Your task to perform on an android device: Open notification settings Image 0: 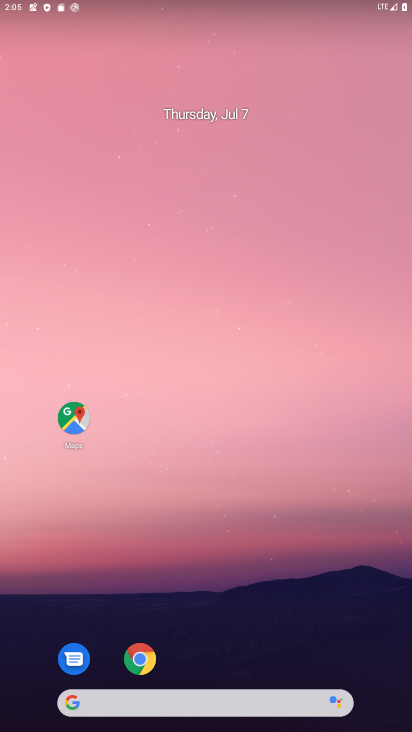
Step 0: drag from (259, 642) to (266, 207)
Your task to perform on an android device: Open notification settings Image 1: 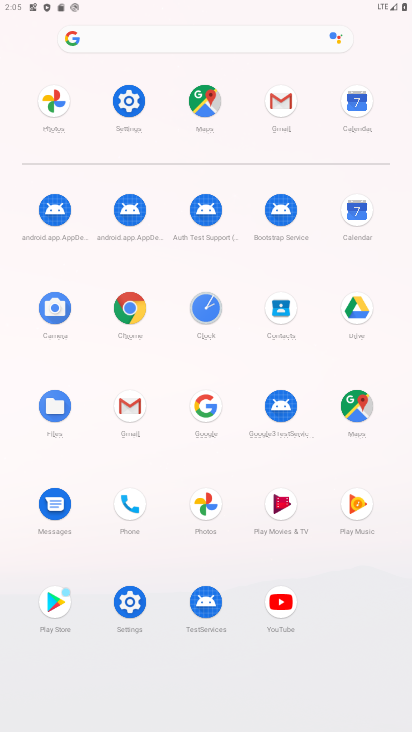
Step 1: click (129, 103)
Your task to perform on an android device: Open notification settings Image 2: 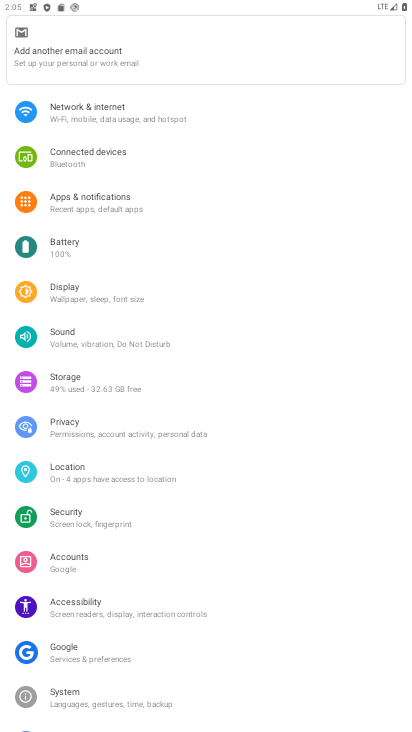
Step 2: click (113, 197)
Your task to perform on an android device: Open notification settings Image 3: 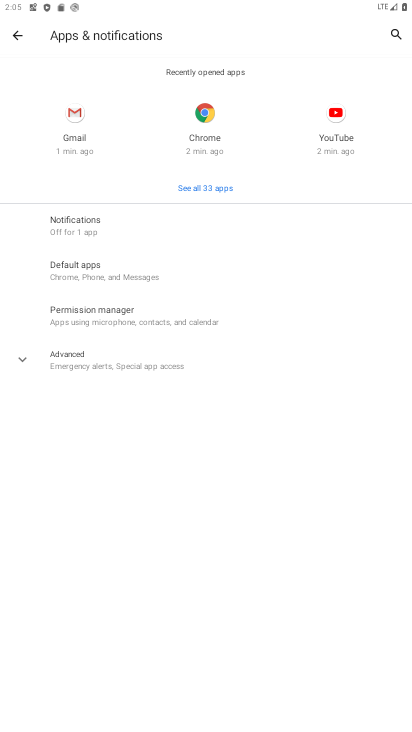
Step 3: click (97, 226)
Your task to perform on an android device: Open notification settings Image 4: 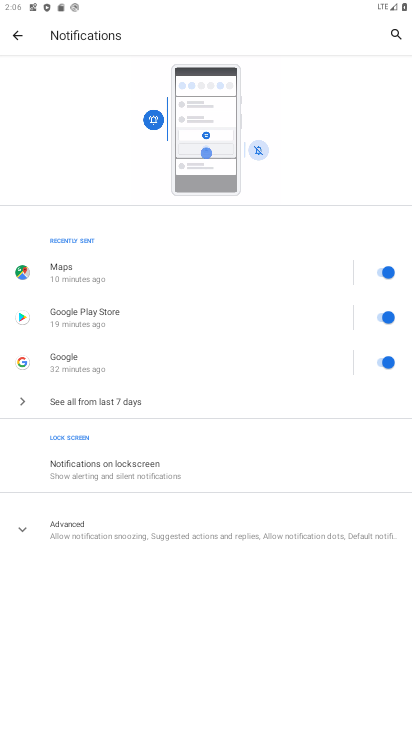
Step 4: task complete